Your task to perform on an android device: turn on bluetooth scan Image 0: 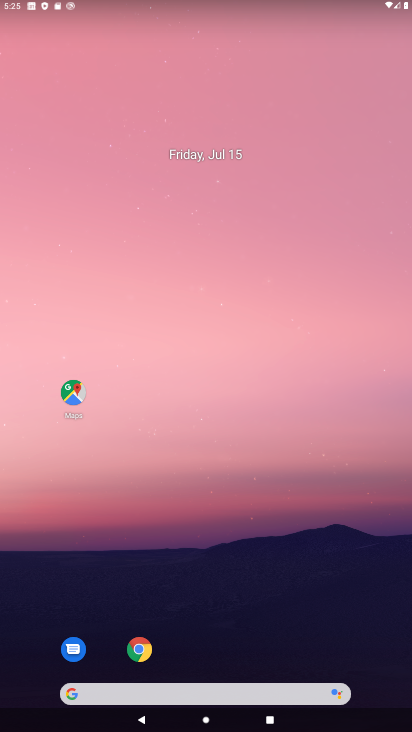
Step 0: drag from (183, 685) to (216, 259)
Your task to perform on an android device: turn on bluetooth scan Image 1: 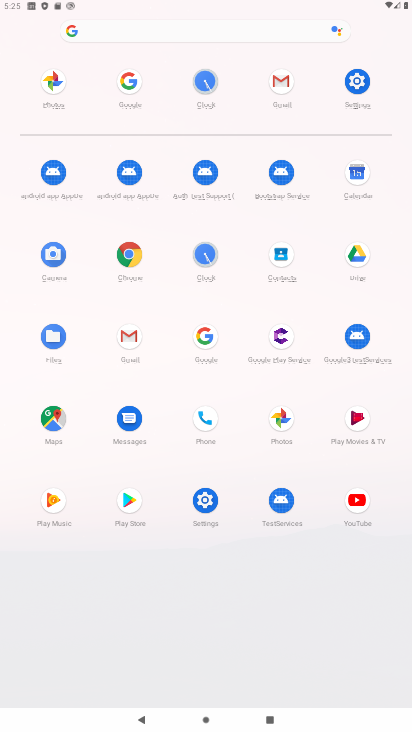
Step 1: click (204, 501)
Your task to perform on an android device: turn on bluetooth scan Image 2: 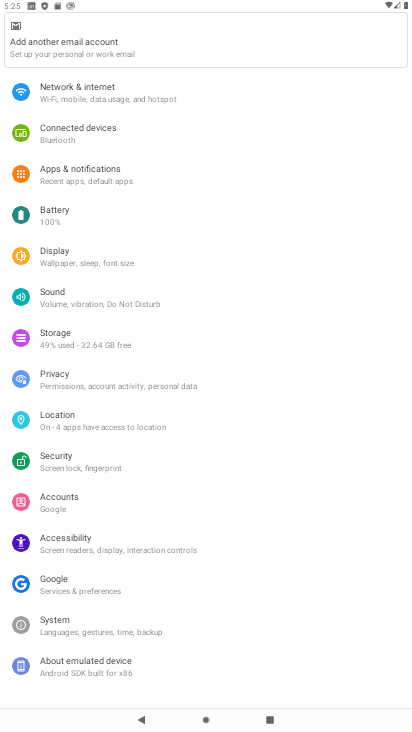
Step 2: click (62, 407)
Your task to perform on an android device: turn on bluetooth scan Image 3: 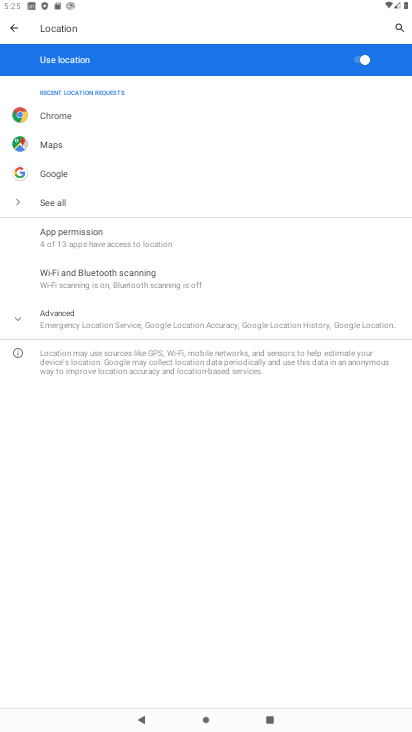
Step 3: click (155, 279)
Your task to perform on an android device: turn on bluetooth scan Image 4: 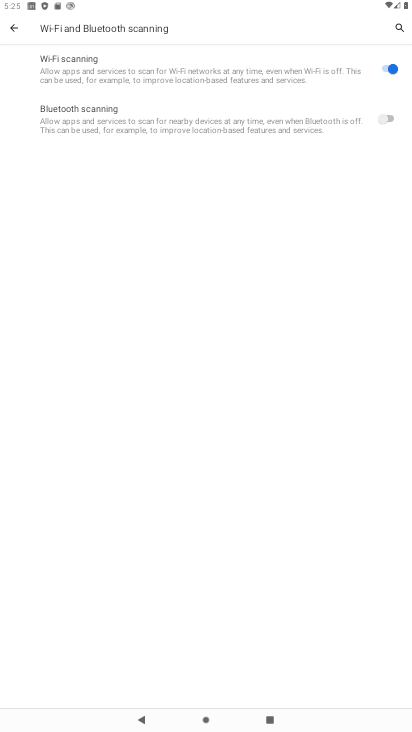
Step 4: click (386, 120)
Your task to perform on an android device: turn on bluetooth scan Image 5: 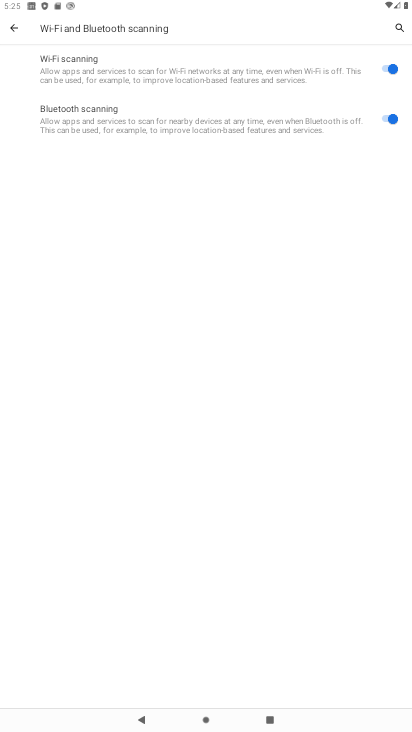
Step 5: task complete